Your task to perform on an android device: visit the assistant section in the google photos Image 0: 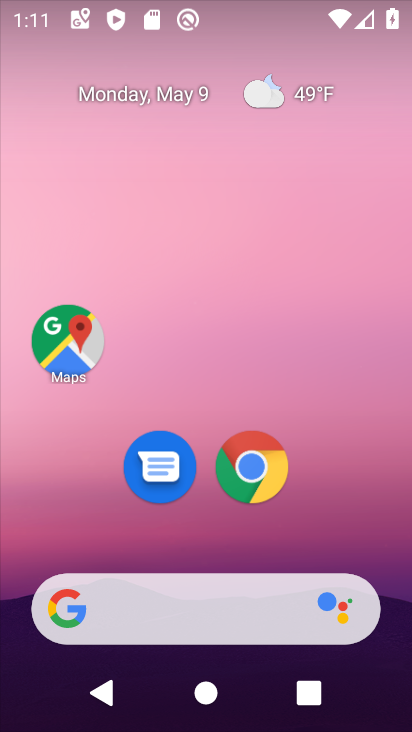
Step 0: drag from (387, 499) to (381, 80)
Your task to perform on an android device: visit the assistant section in the google photos Image 1: 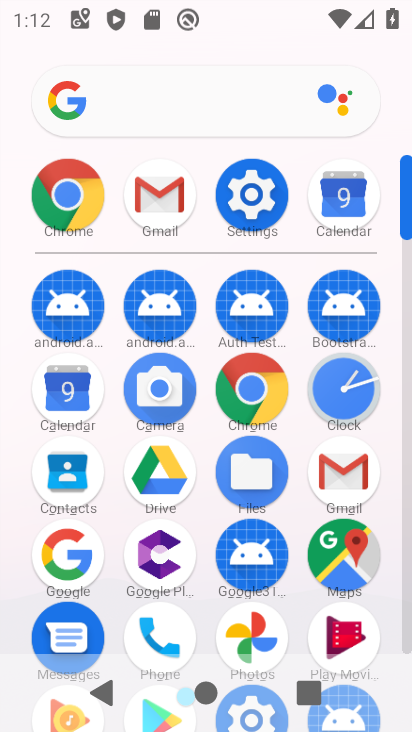
Step 1: click (257, 632)
Your task to perform on an android device: visit the assistant section in the google photos Image 2: 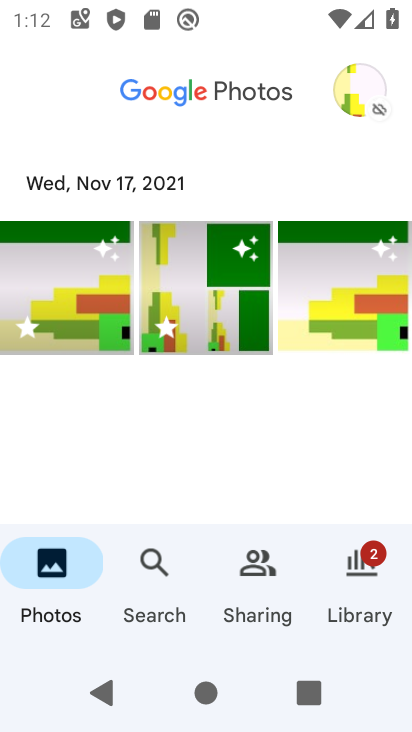
Step 2: click (368, 558)
Your task to perform on an android device: visit the assistant section in the google photos Image 3: 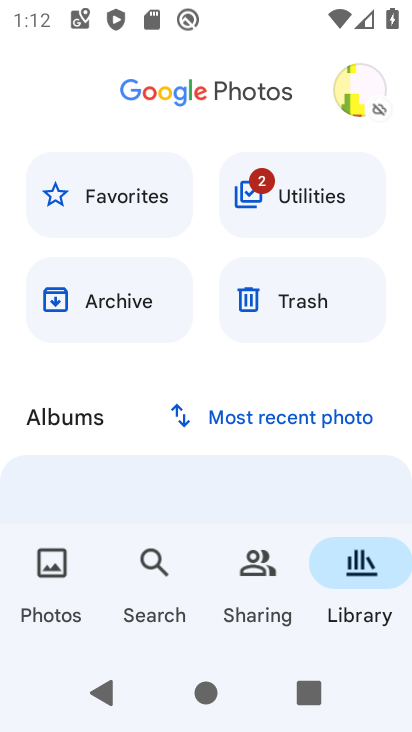
Step 3: click (356, 105)
Your task to perform on an android device: visit the assistant section in the google photos Image 4: 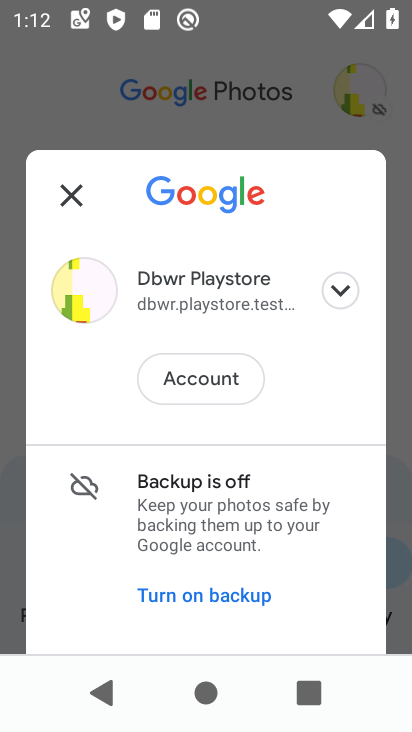
Step 4: drag from (278, 565) to (291, 269)
Your task to perform on an android device: visit the assistant section in the google photos Image 5: 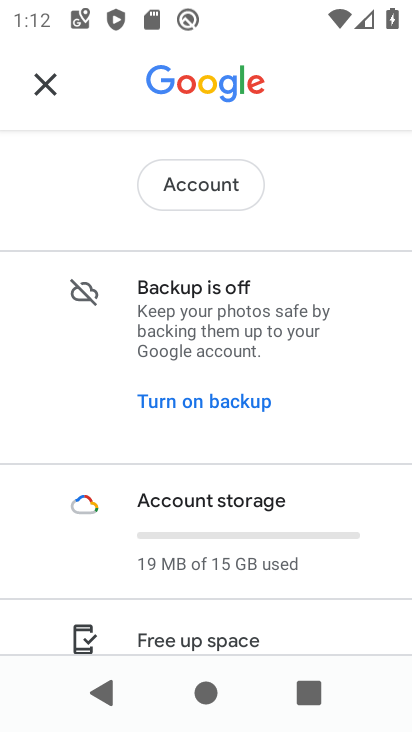
Step 5: drag from (345, 613) to (351, 336)
Your task to perform on an android device: visit the assistant section in the google photos Image 6: 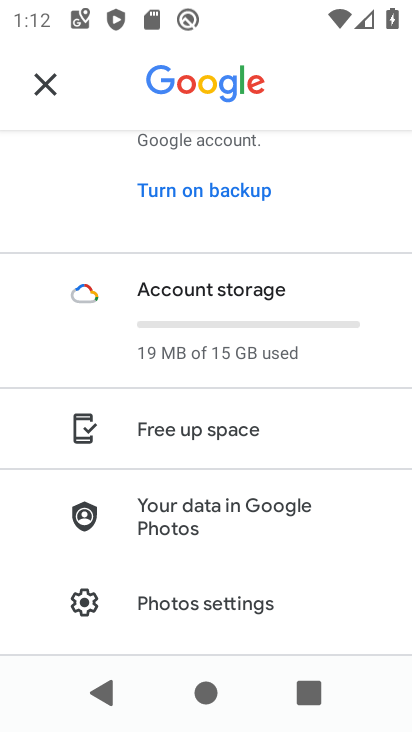
Step 6: click (262, 592)
Your task to perform on an android device: visit the assistant section in the google photos Image 7: 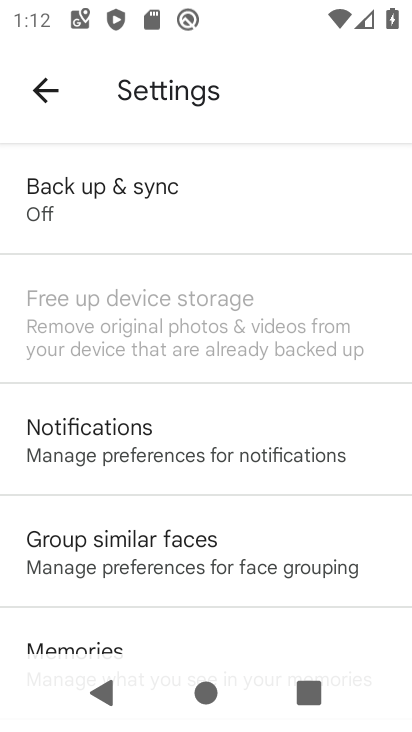
Step 7: task complete